Your task to perform on an android device: Open sound settings Image 0: 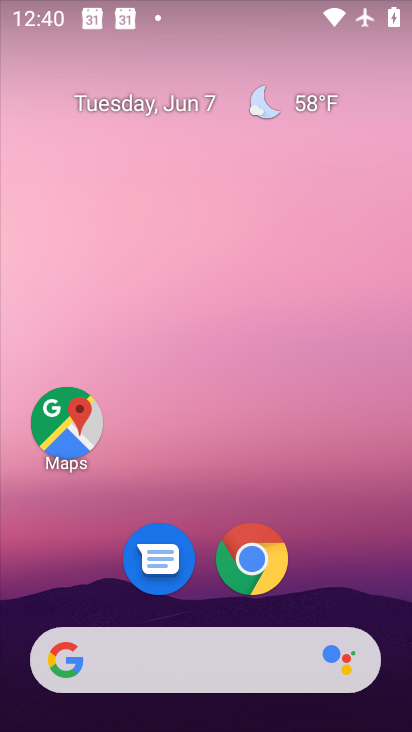
Step 0: drag from (399, 640) to (297, 40)
Your task to perform on an android device: Open sound settings Image 1: 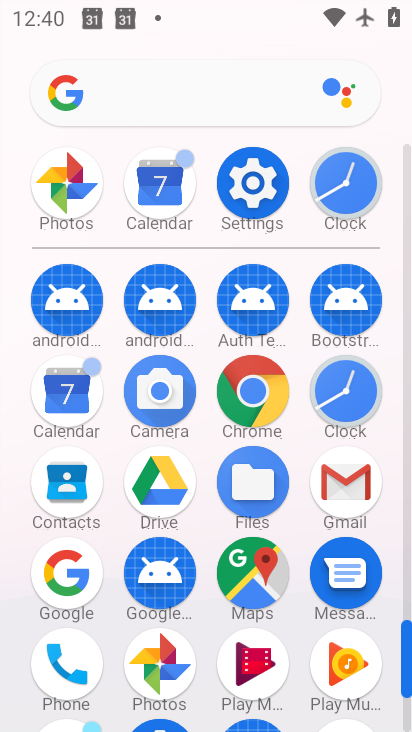
Step 1: drag from (406, 604) to (404, 553)
Your task to perform on an android device: Open sound settings Image 2: 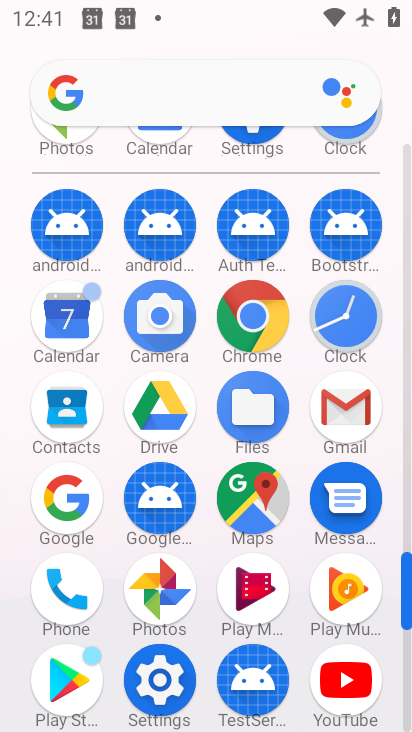
Step 2: click (160, 681)
Your task to perform on an android device: Open sound settings Image 3: 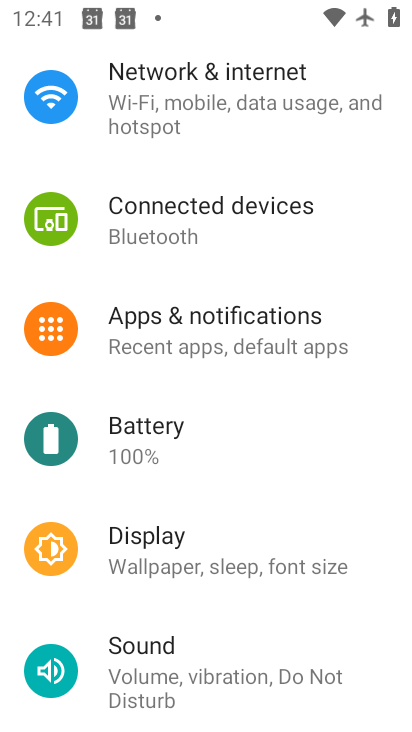
Step 3: drag from (367, 576) to (352, 291)
Your task to perform on an android device: Open sound settings Image 4: 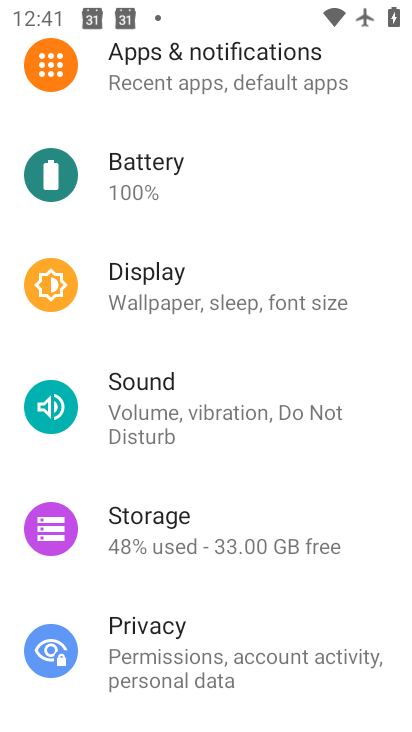
Step 4: click (150, 404)
Your task to perform on an android device: Open sound settings Image 5: 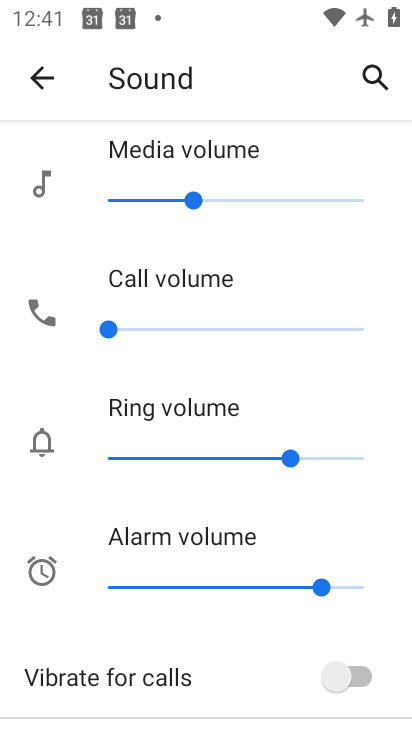
Step 5: drag from (386, 662) to (339, 129)
Your task to perform on an android device: Open sound settings Image 6: 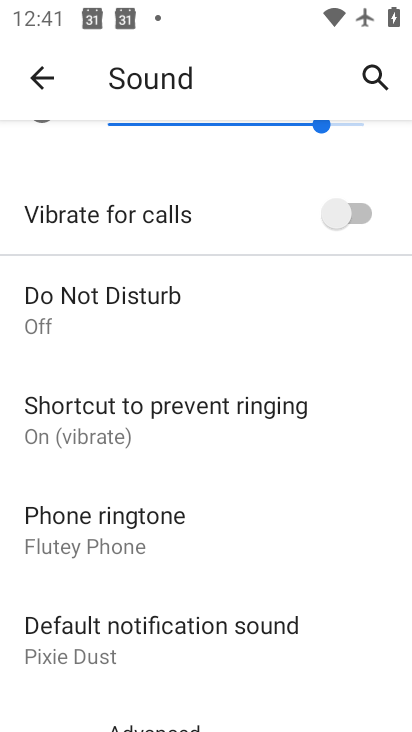
Step 6: drag from (341, 650) to (322, 236)
Your task to perform on an android device: Open sound settings Image 7: 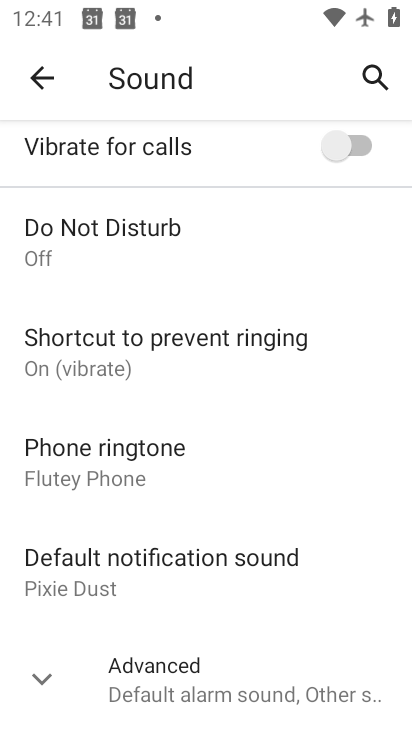
Step 7: click (43, 679)
Your task to perform on an android device: Open sound settings Image 8: 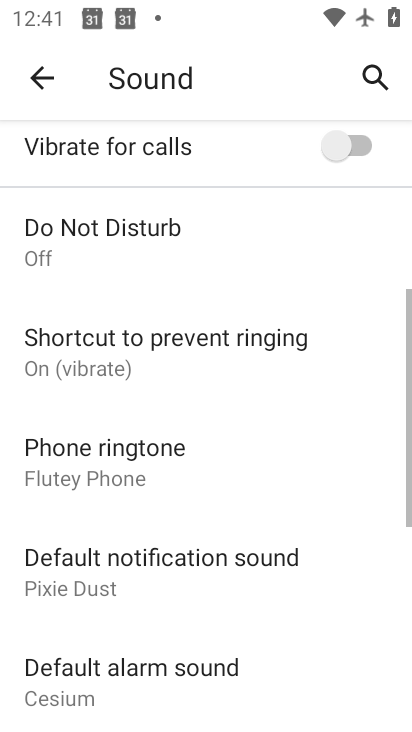
Step 8: task complete